Your task to perform on an android device: Open the Play Movies app and select the watchlist tab. Image 0: 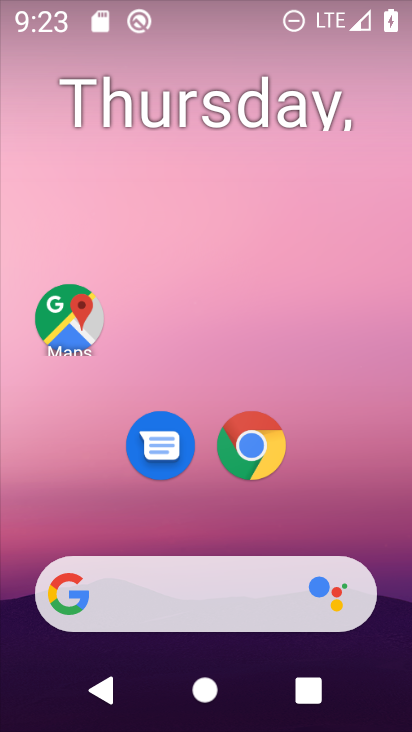
Step 0: drag from (390, 632) to (313, 90)
Your task to perform on an android device: Open the Play Movies app and select the watchlist tab. Image 1: 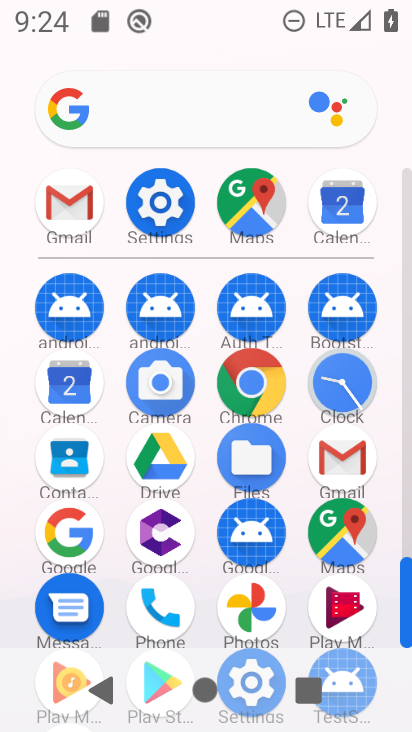
Step 1: click (344, 606)
Your task to perform on an android device: Open the Play Movies app and select the watchlist tab. Image 2: 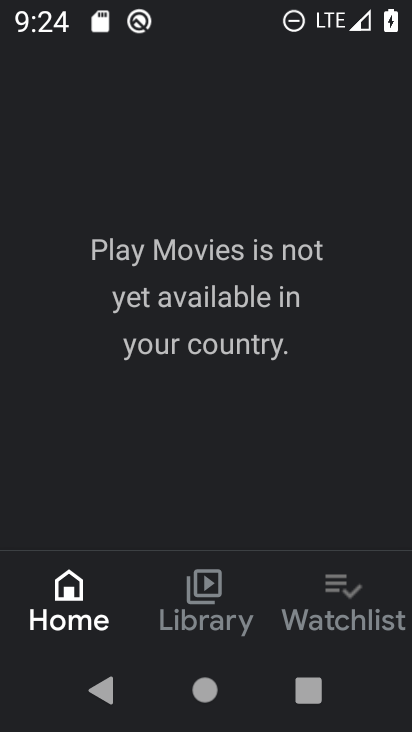
Step 2: click (361, 612)
Your task to perform on an android device: Open the Play Movies app and select the watchlist tab. Image 3: 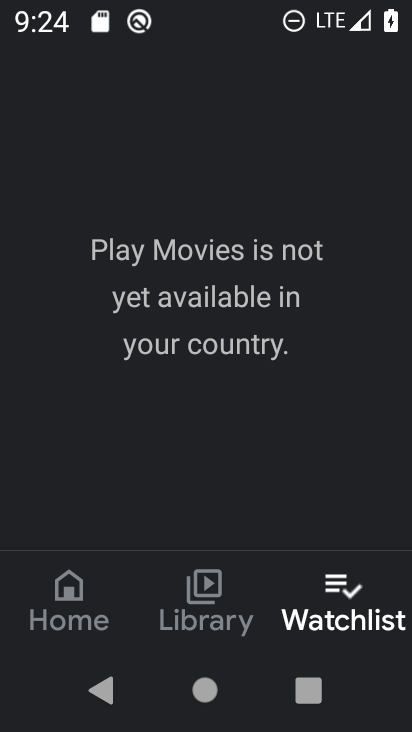
Step 3: task complete